Your task to perform on an android device: check data usage Image 0: 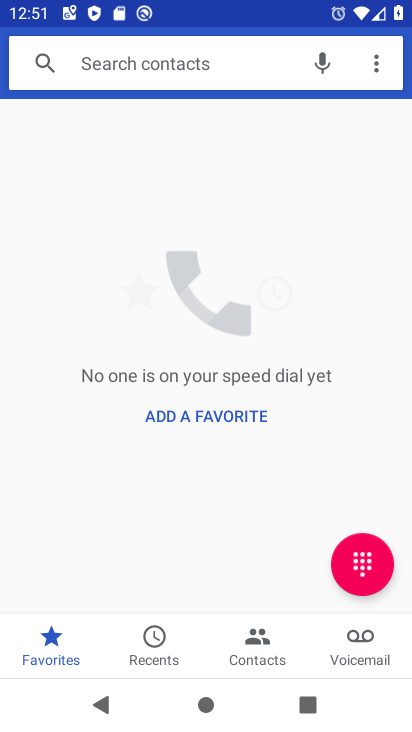
Step 0: press home button
Your task to perform on an android device: check data usage Image 1: 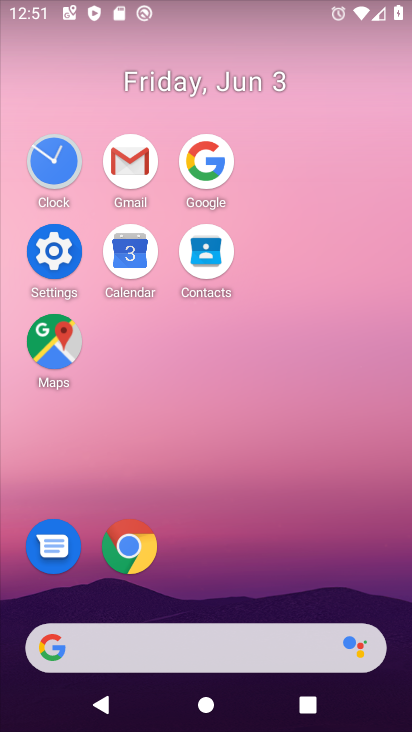
Step 1: click (57, 261)
Your task to perform on an android device: check data usage Image 2: 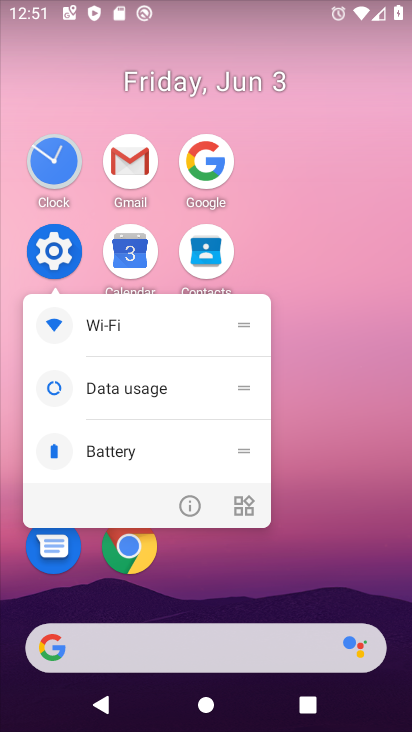
Step 2: click (64, 266)
Your task to perform on an android device: check data usage Image 3: 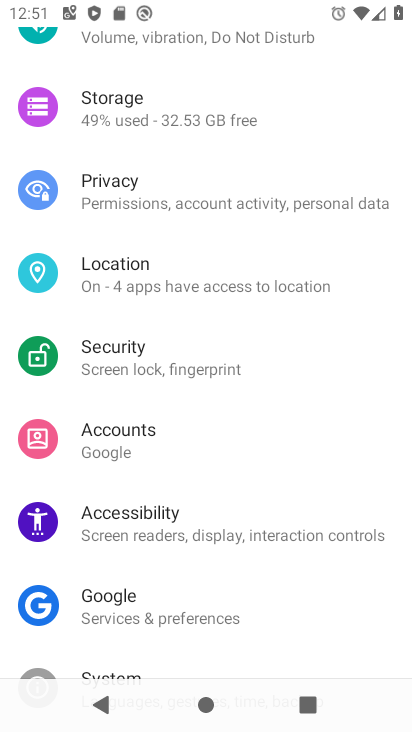
Step 3: drag from (299, 194) to (269, 465)
Your task to perform on an android device: check data usage Image 4: 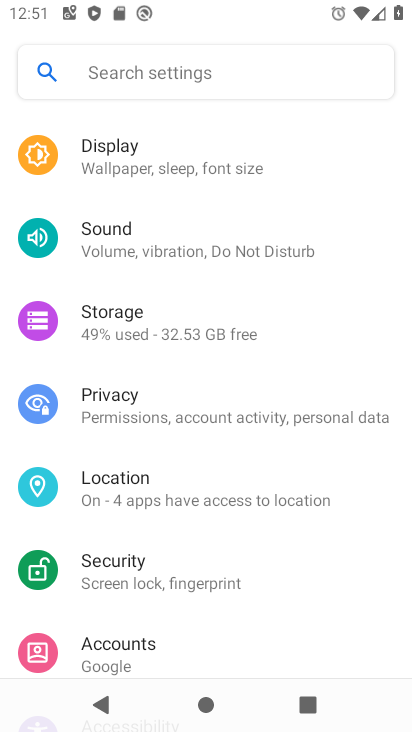
Step 4: drag from (226, 182) to (274, 556)
Your task to perform on an android device: check data usage Image 5: 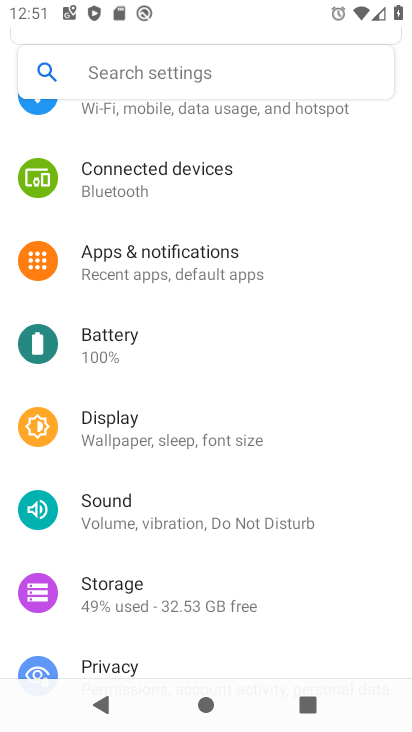
Step 5: drag from (239, 183) to (212, 522)
Your task to perform on an android device: check data usage Image 6: 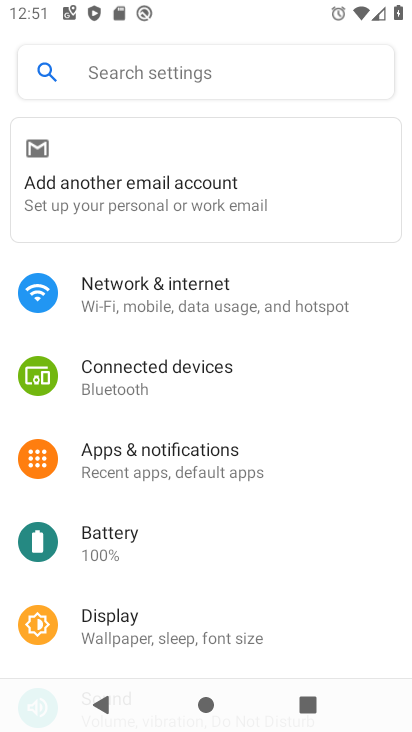
Step 6: click (240, 311)
Your task to perform on an android device: check data usage Image 7: 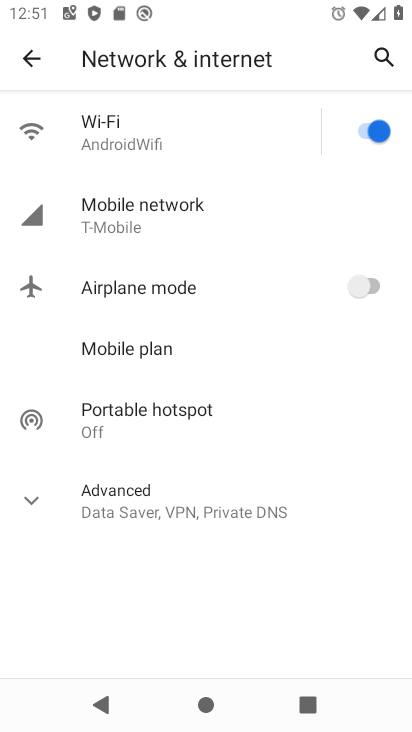
Step 7: click (141, 199)
Your task to perform on an android device: check data usage Image 8: 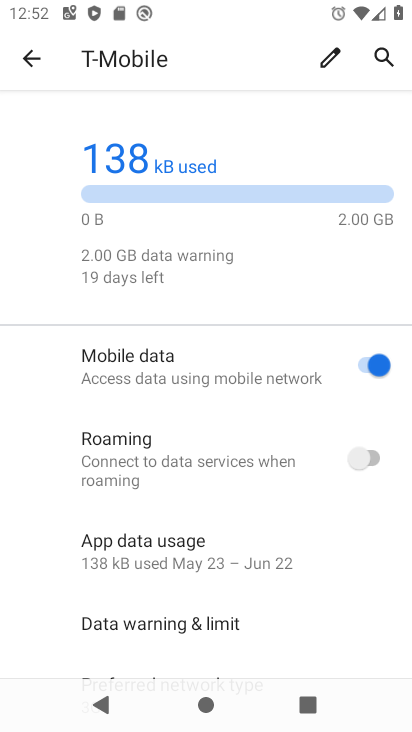
Step 8: task complete